Your task to perform on an android device: change the clock display to digital Image 0: 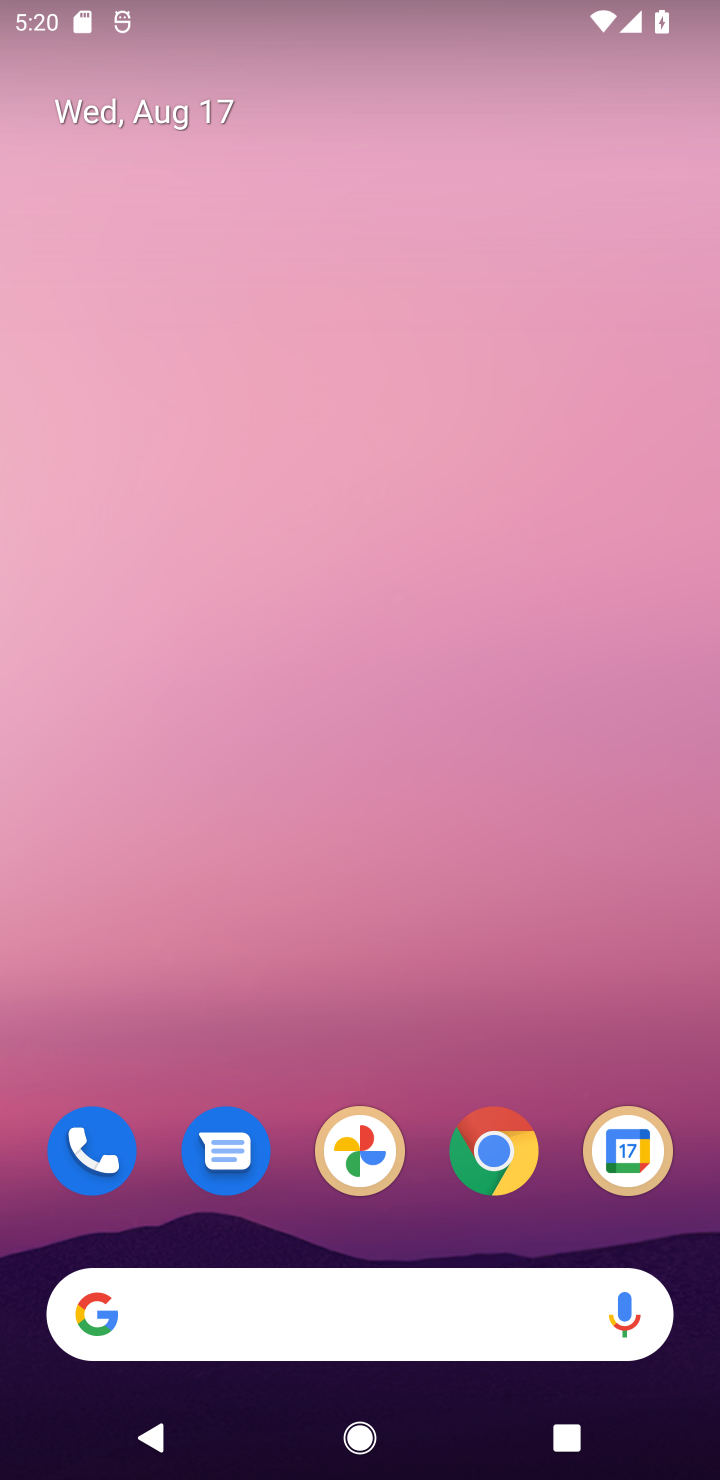
Step 0: drag from (399, 1252) to (343, 176)
Your task to perform on an android device: change the clock display to digital Image 1: 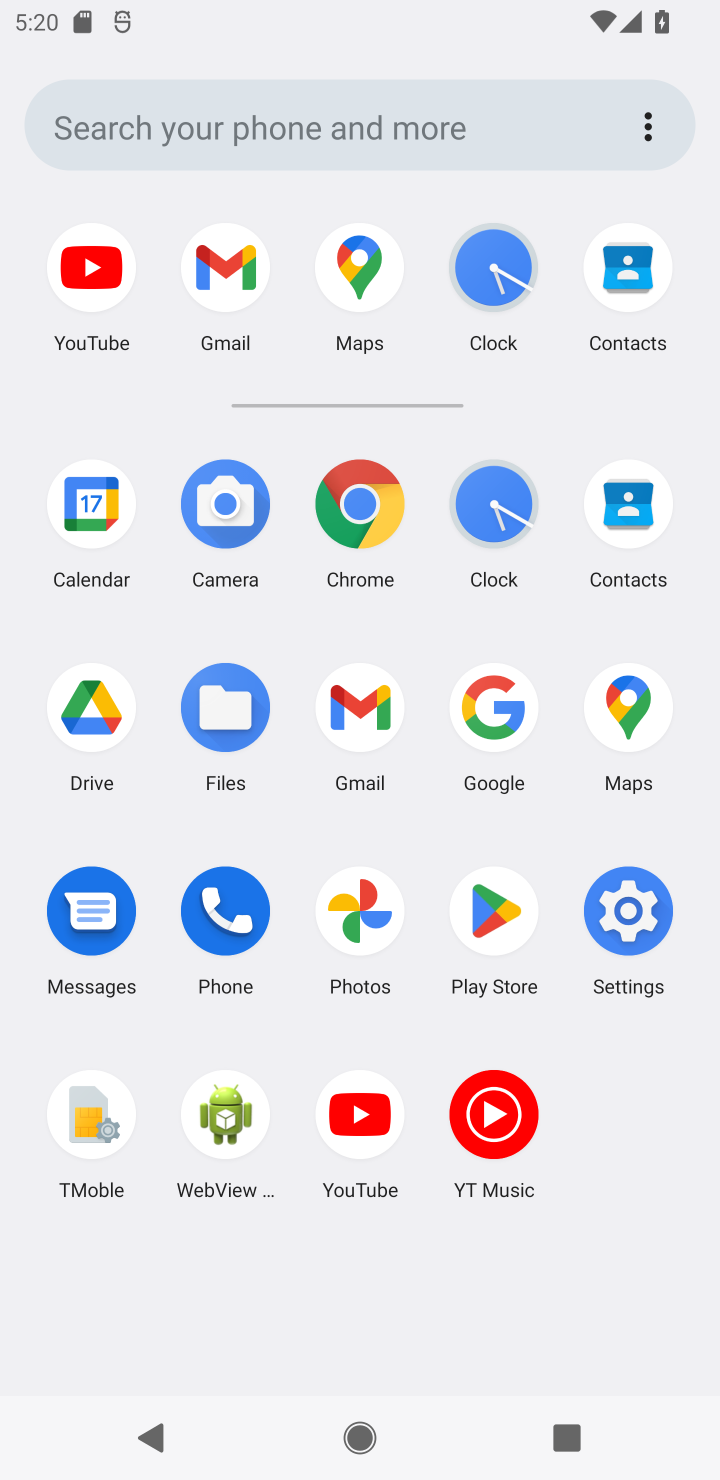
Step 1: click (492, 331)
Your task to perform on an android device: change the clock display to digital Image 2: 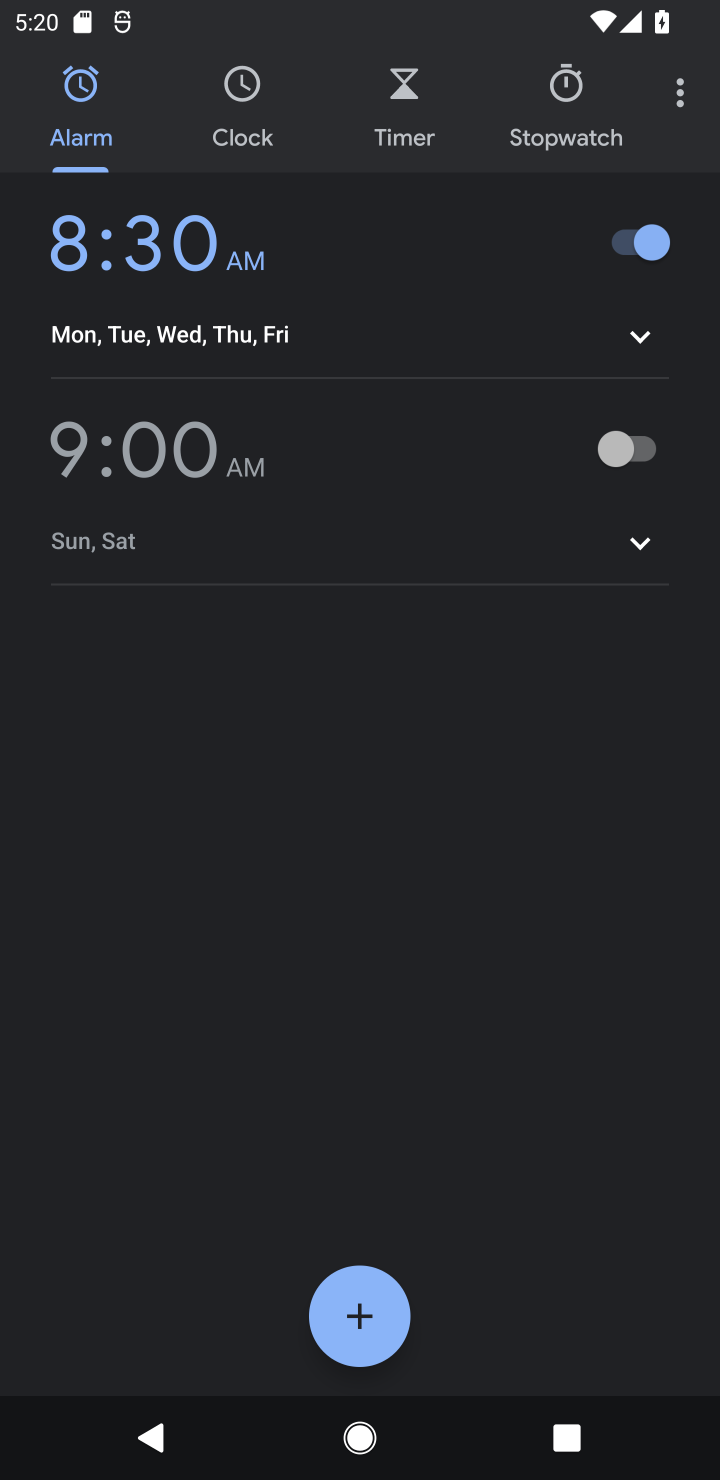
Step 2: click (656, 108)
Your task to perform on an android device: change the clock display to digital Image 3: 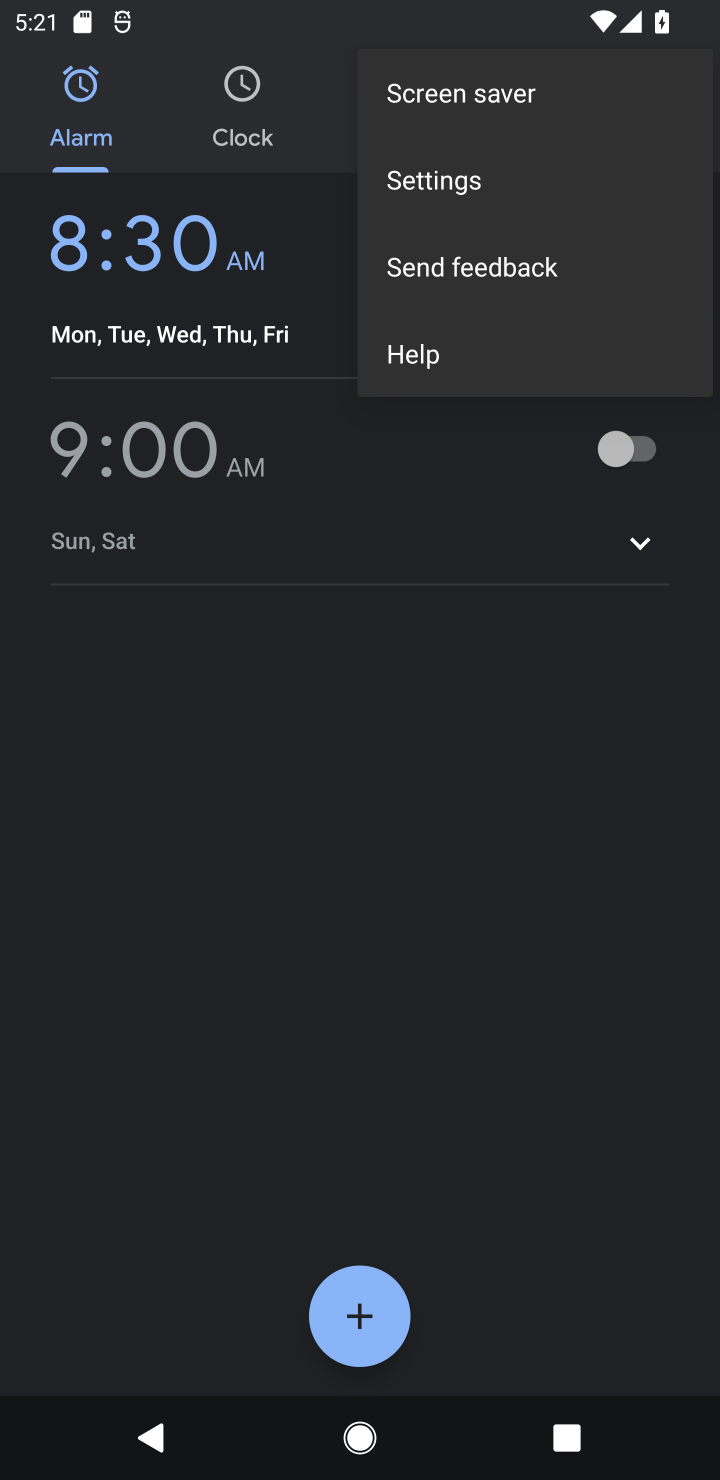
Step 3: click (446, 167)
Your task to perform on an android device: change the clock display to digital Image 4: 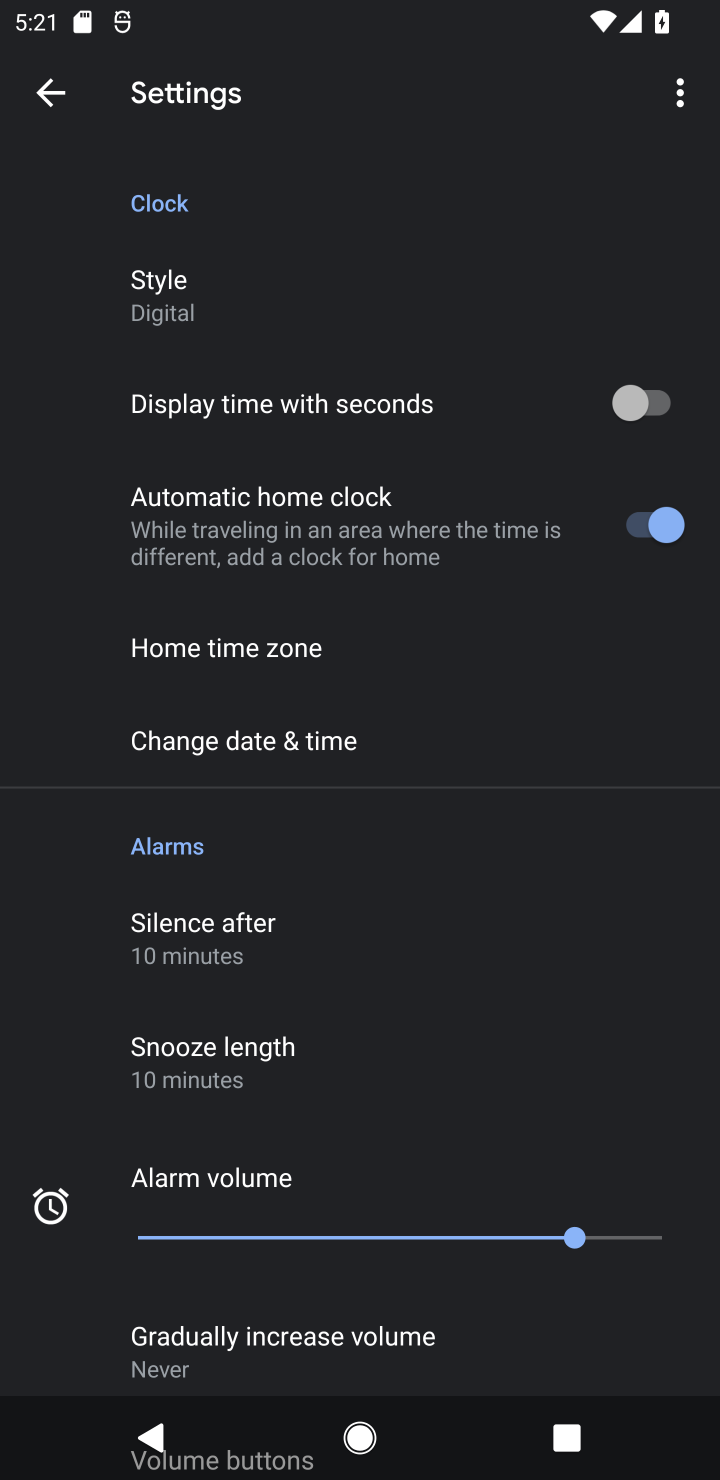
Step 4: click (237, 321)
Your task to perform on an android device: change the clock display to digital Image 5: 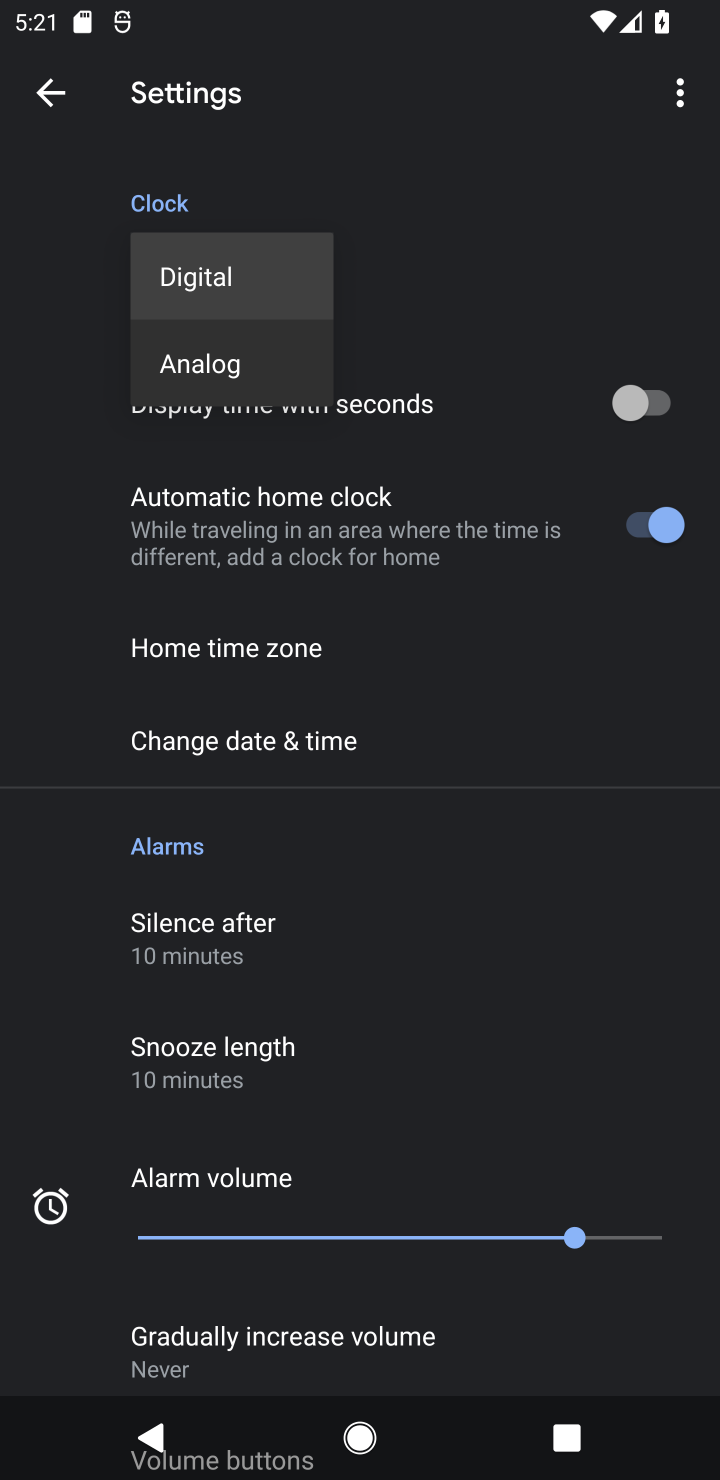
Step 5: click (191, 337)
Your task to perform on an android device: change the clock display to digital Image 6: 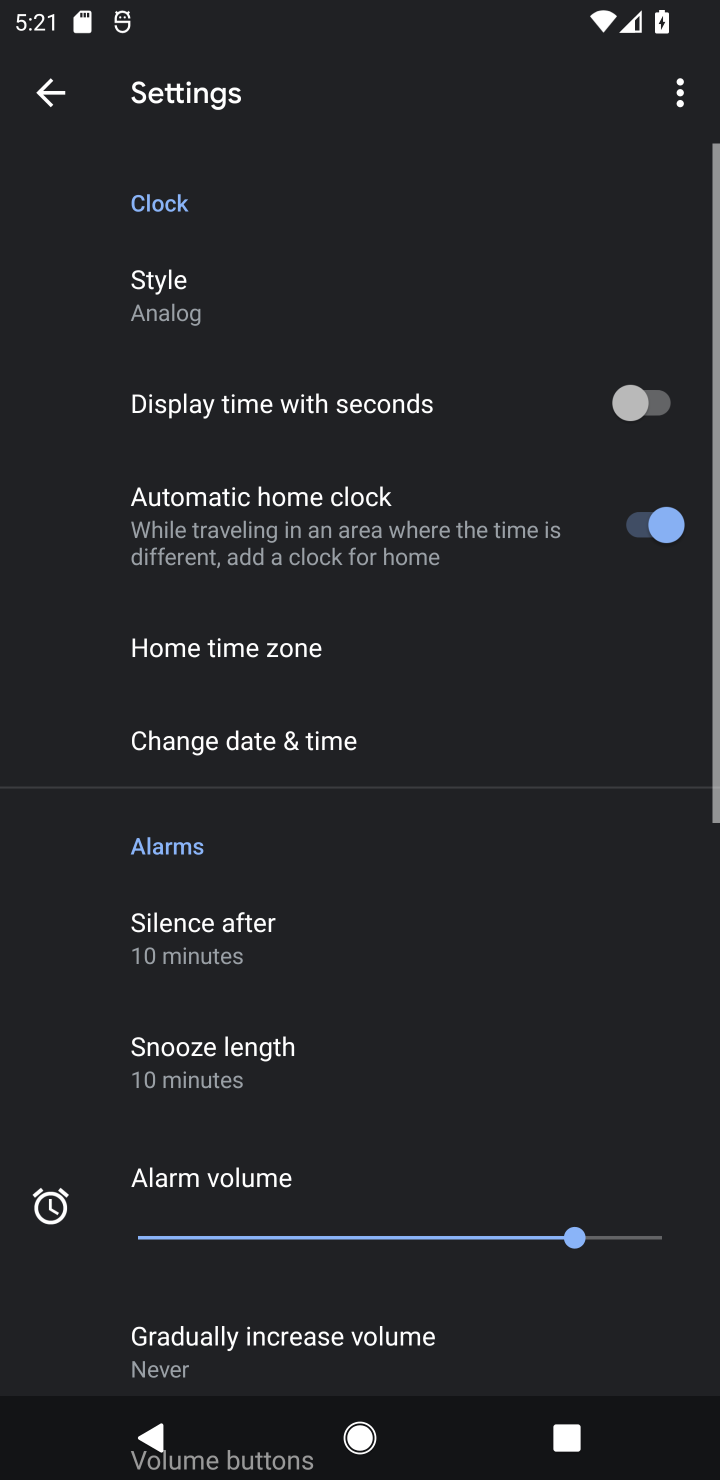
Step 6: task complete